Your task to perform on an android device: turn off airplane mode Image 0: 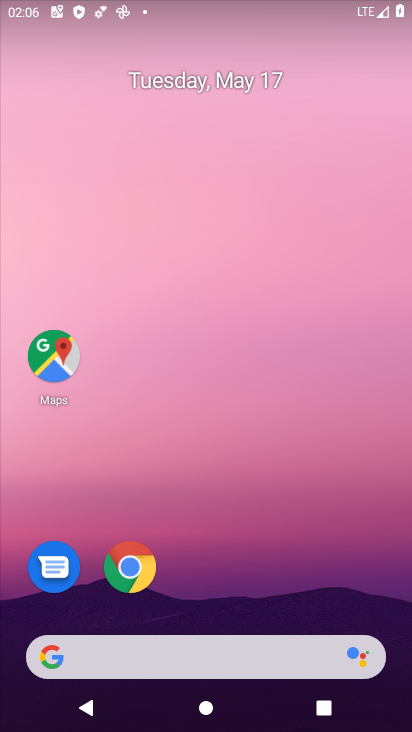
Step 0: drag from (384, 622) to (289, 69)
Your task to perform on an android device: turn off airplane mode Image 1: 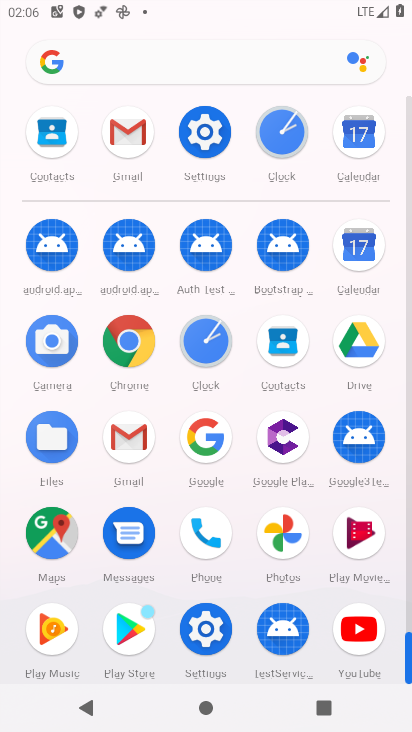
Step 1: click (207, 626)
Your task to perform on an android device: turn off airplane mode Image 2: 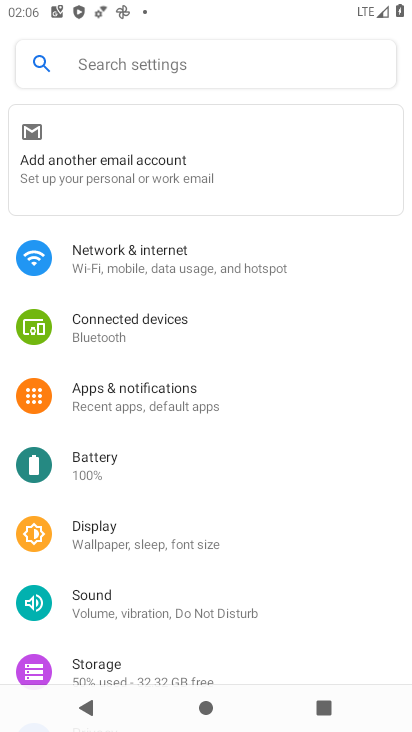
Step 2: click (144, 252)
Your task to perform on an android device: turn off airplane mode Image 3: 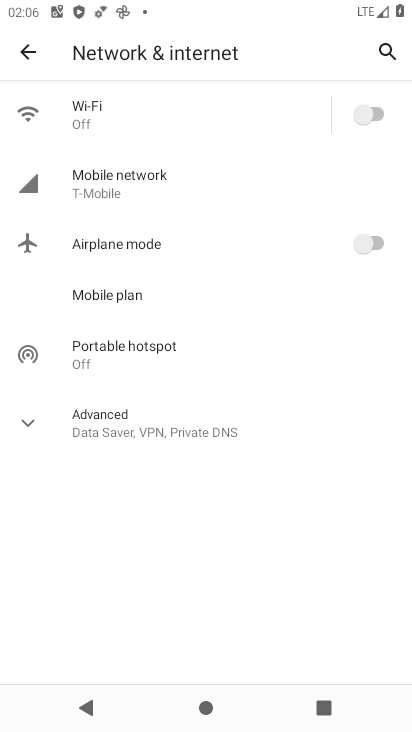
Step 3: task complete